Your task to perform on an android device: turn on wifi Image 0: 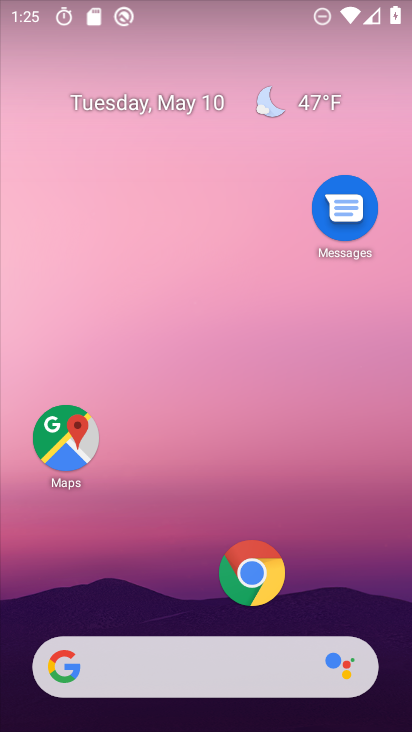
Step 0: drag from (182, 612) to (223, 96)
Your task to perform on an android device: turn on wifi Image 1: 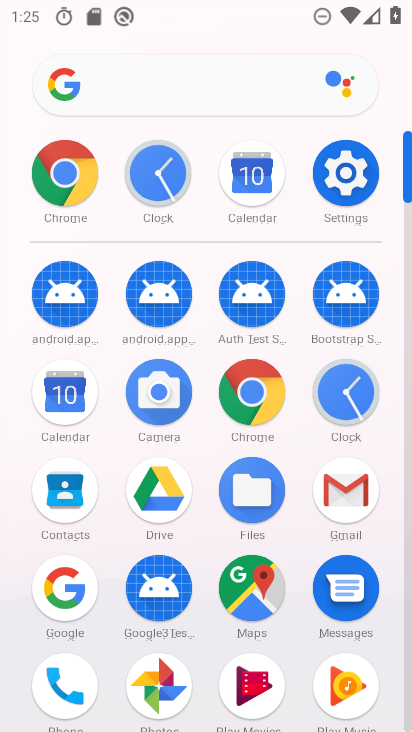
Step 1: click (354, 163)
Your task to perform on an android device: turn on wifi Image 2: 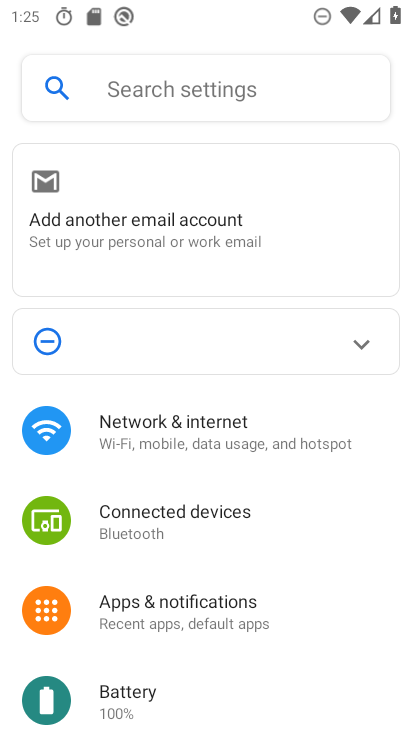
Step 2: drag from (199, 602) to (336, 133)
Your task to perform on an android device: turn on wifi Image 3: 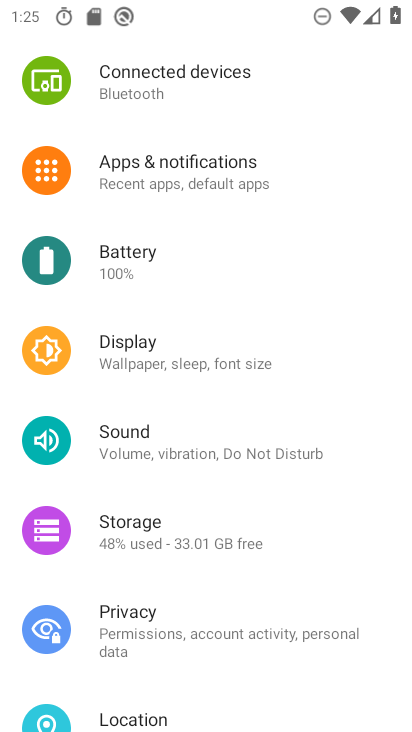
Step 3: drag from (173, 671) to (245, 730)
Your task to perform on an android device: turn on wifi Image 4: 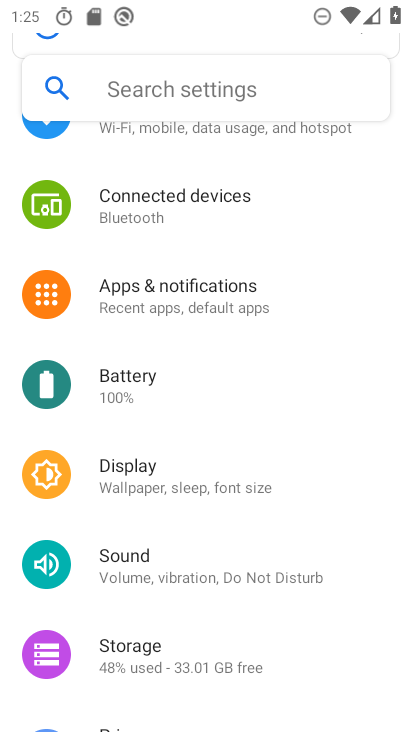
Step 4: drag from (212, 206) to (211, 729)
Your task to perform on an android device: turn on wifi Image 5: 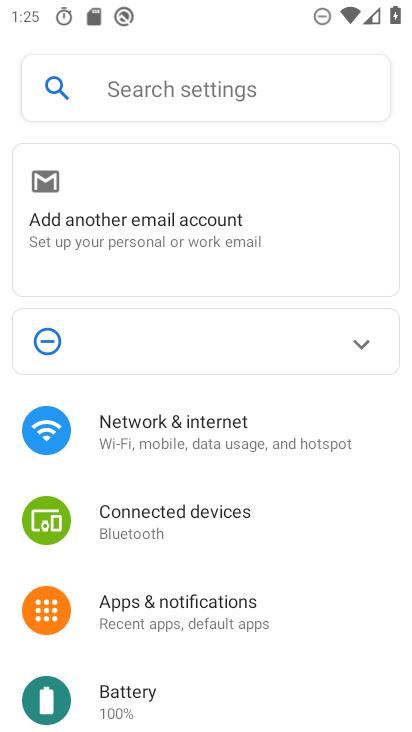
Step 5: click (164, 449)
Your task to perform on an android device: turn on wifi Image 6: 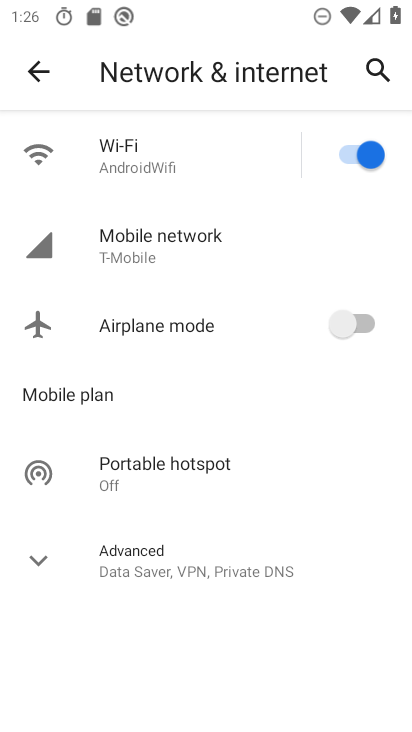
Step 6: task complete